Your task to perform on an android device: Go to eBay Image 0: 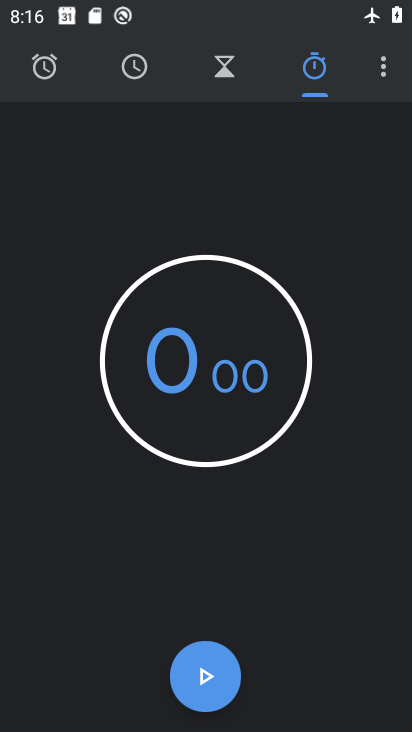
Step 0: press home button
Your task to perform on an android device: Go to eBay Image 1: 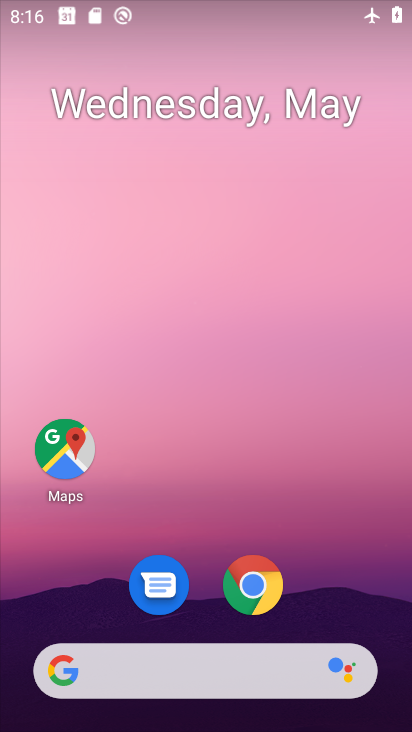
Step 1: click (208, 670)
Your task to perform on an android device: Go to eBay Image 2: 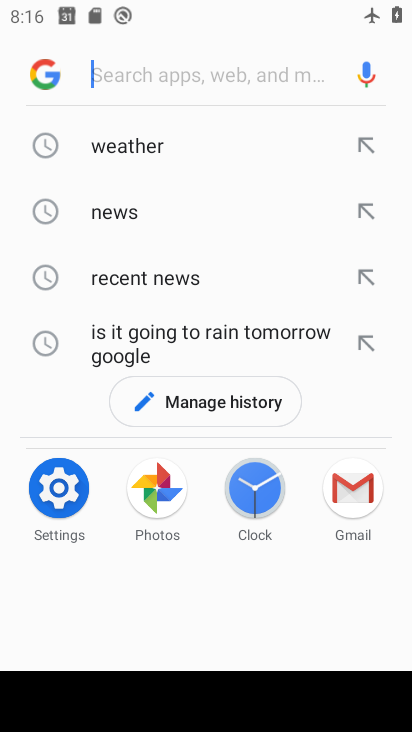
Step 2: type "ebay"
Your task to perform on an android device: Go to eBay Image 3: 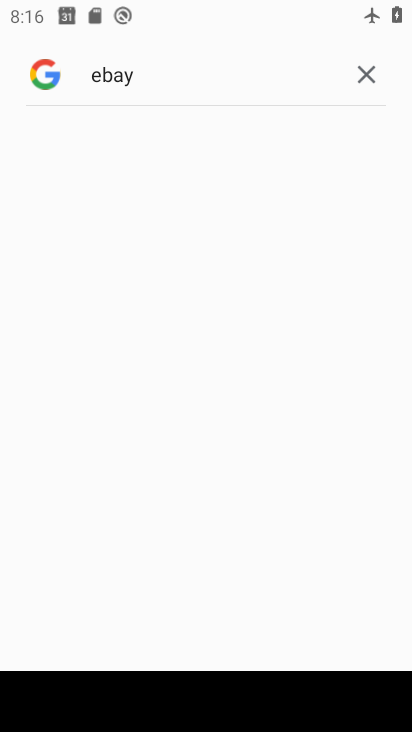
Step 3: task complete